Your task to perform on an android device: Show me the alarms in the clock app Image 0: 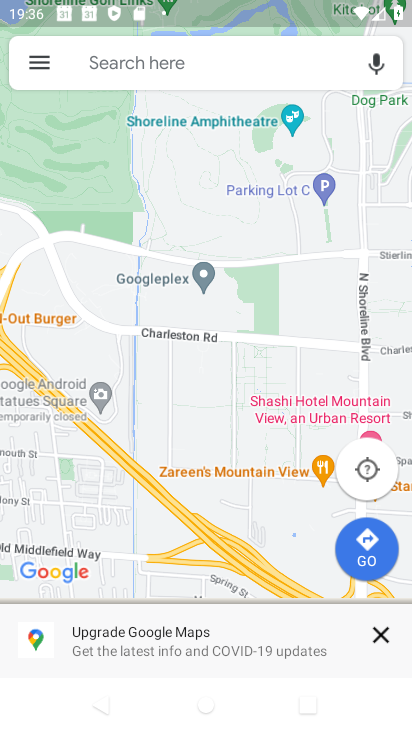
Step 0: press home button
Your task to perform on an android device: Show me the alarms in the clock app Image 1: 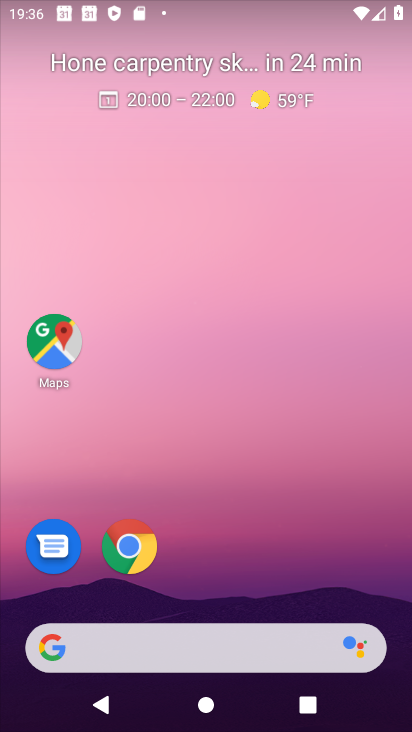
Step 1: drag from (239, 561) to (217, 241)
Your task to perform on an android device: Show me the alarms in the clock app Image 2: 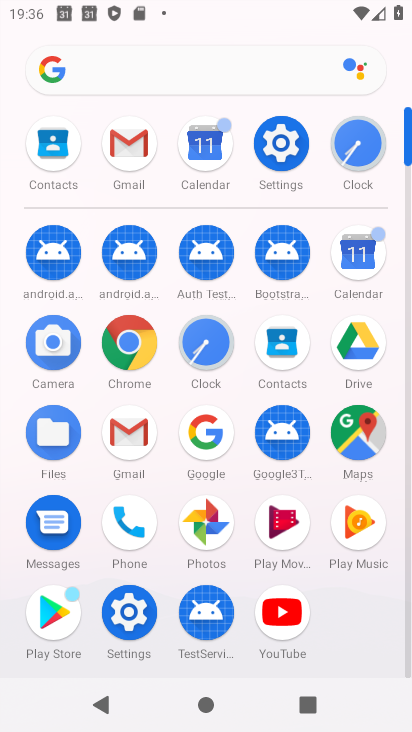
Step 2: click (347, 147)
Your task to perform on an android device: Show me the alarms in the clock app Image 3: 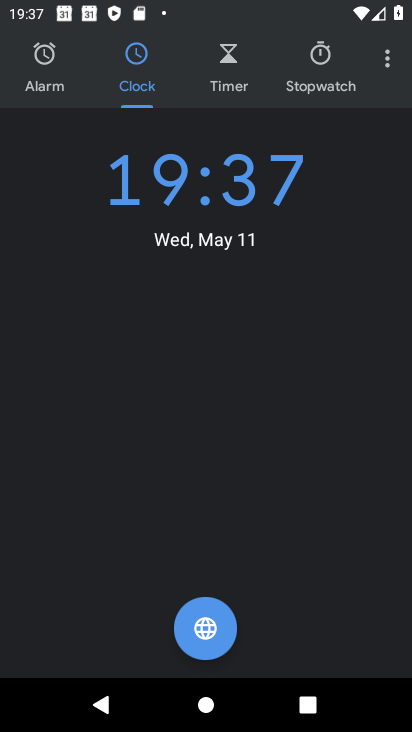
Step 3: click (67, 85)
Your task to perform on an android device: Show me the alarms in the clock app Image 4: 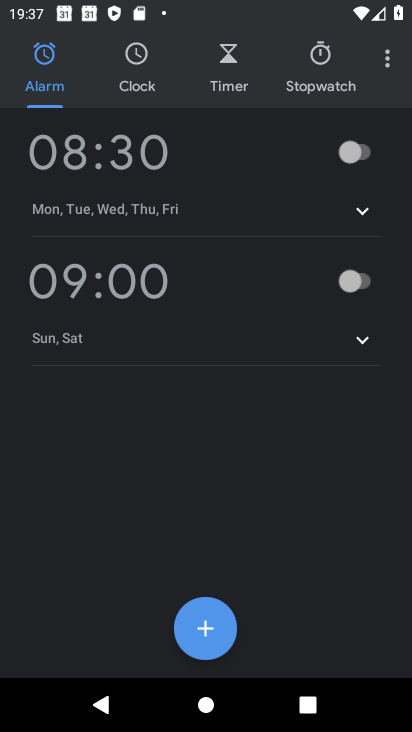
Step 4: task complete